Your task to perform on an android device: toggle improve location accuracy Image 0: 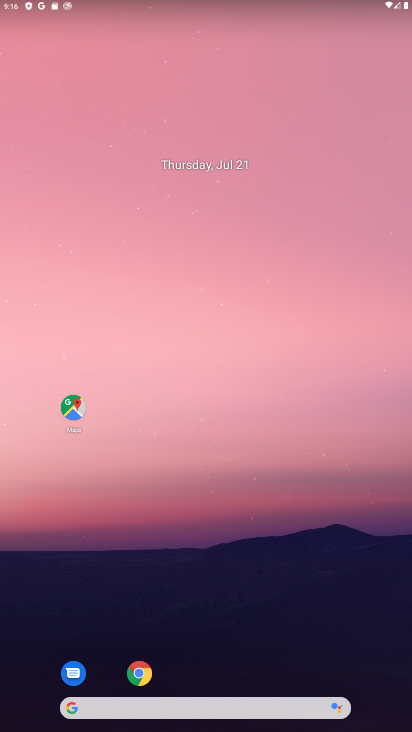
Step 0: press home button
Your task to perform on an android device: toggle improve location accuracy Image 1: 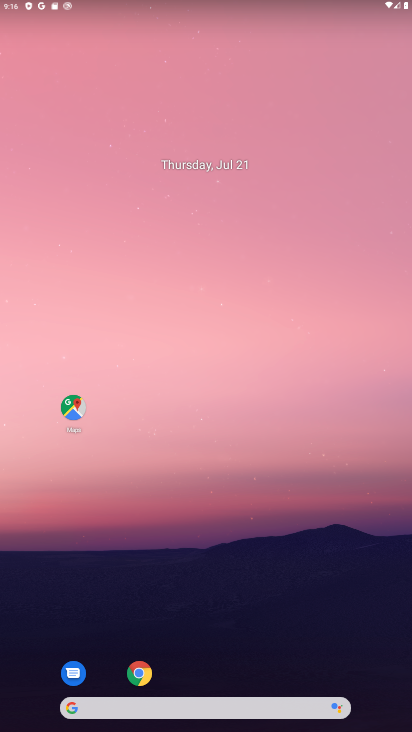
Step 1: drag from (214, 676) to (241, 85)
Your task to perform on an android device: toggle improve location accuracy Image 2: 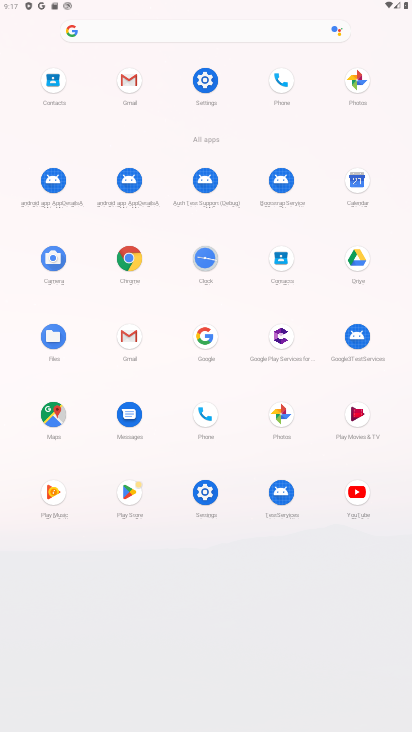
Step 2: click (203, 74)
Your task to perform on an android device: toggle improve location accuracy Image 3: 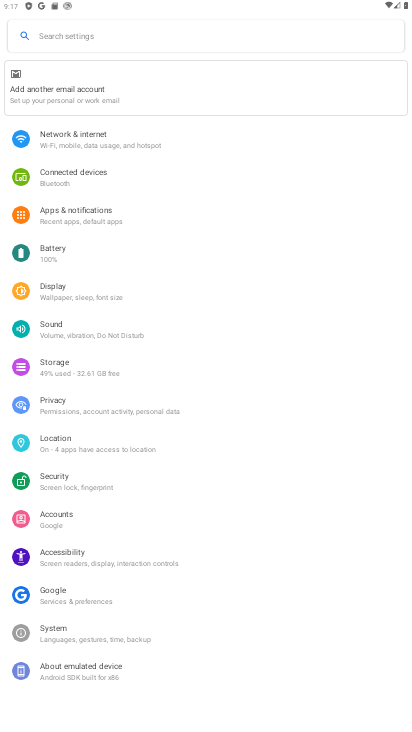
Step 3: click (74, 441)
Your task to perform on an android device: toggle improve location accuracy Image 4: 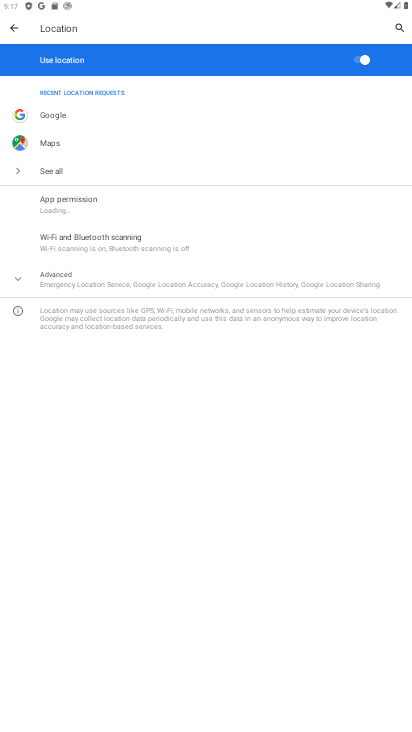
Step 4: click (48, 279)
Your task to perform on an android device: toggle improve location accuracy Image 5: 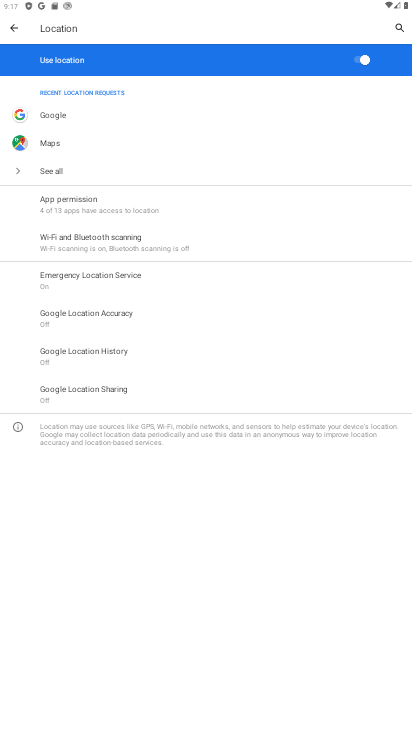
Step 5: click (123, 314)
Your task to perform on an android device: toggle improve location accuracy Image 6: 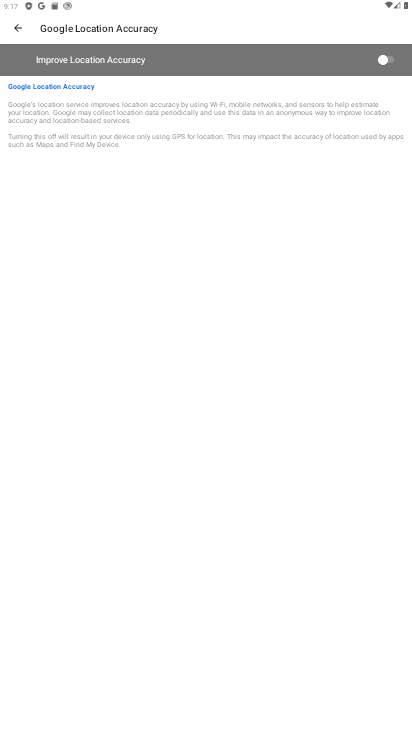
Step 6: click (385, 56)
Your task to perform on an android device: toggle improve location accuracy Image 7: 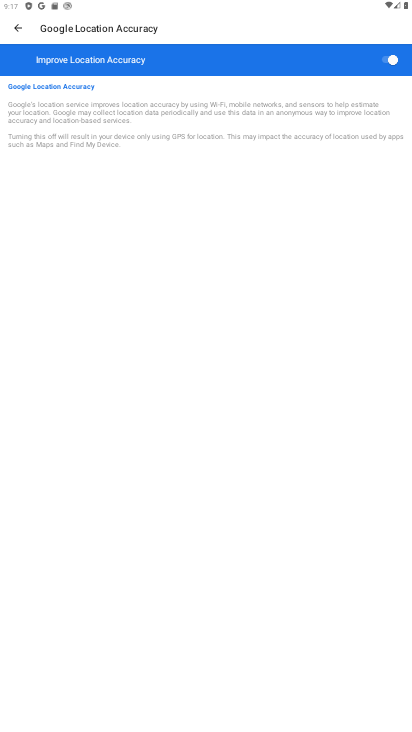
Step 7: task complete